Your task to perform on an android device: Open Wikipedia Image 0: 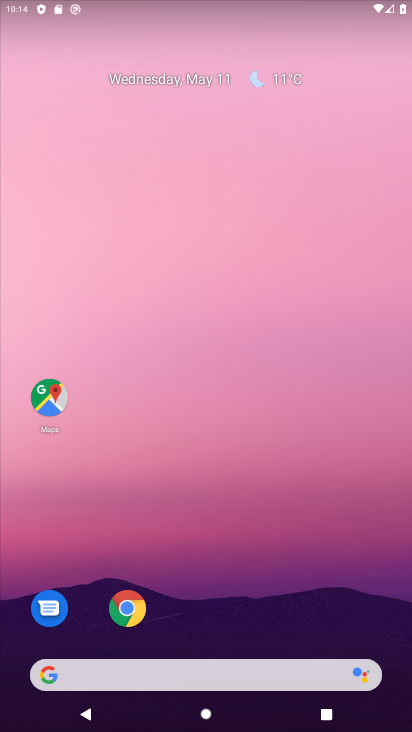
Step 0: click (283, 273)
Your task to perform on an android device: Open Wikipedia Image 1: 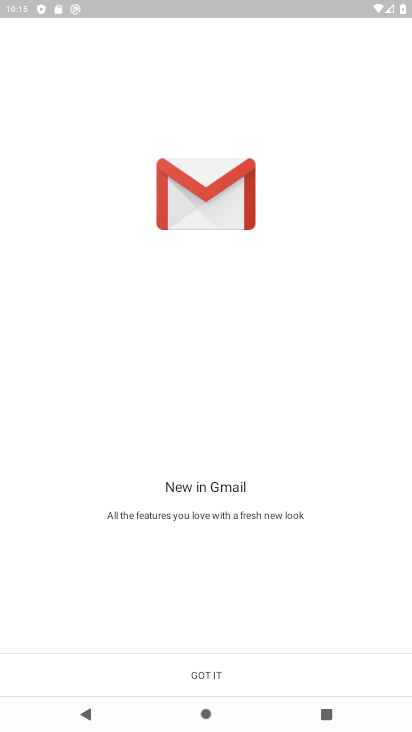
Step 1: press home button
Your task to perform on an android device: Open Wikipedia Image 2: 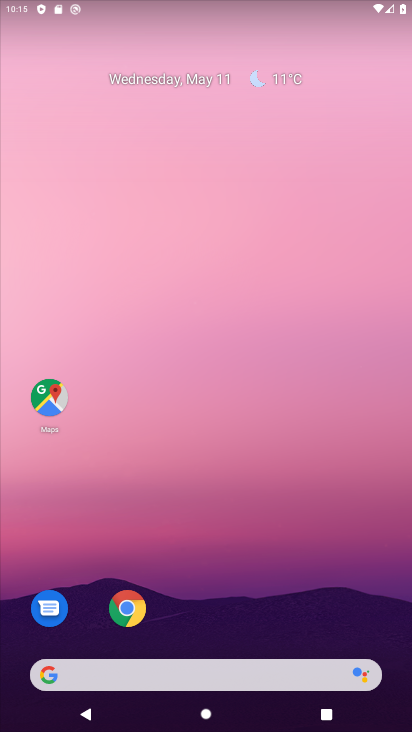
Step 2: click (131, 607)
Your task to perform on an android device: Open Wikipedia Image 3: 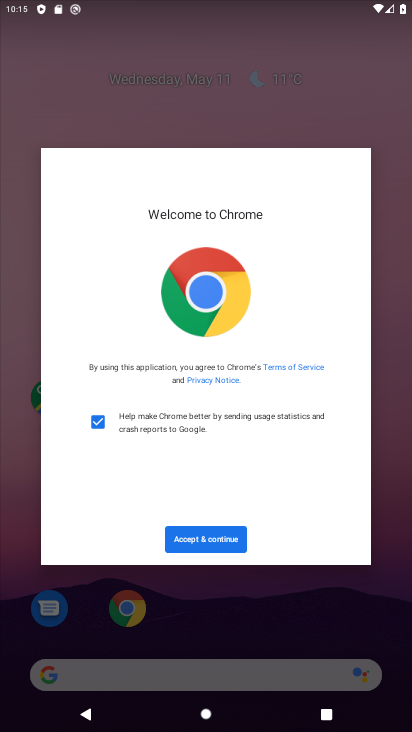
Step 3: click (227, 548)
Your task to perform on an android device: Open Wikipedia Image 4: 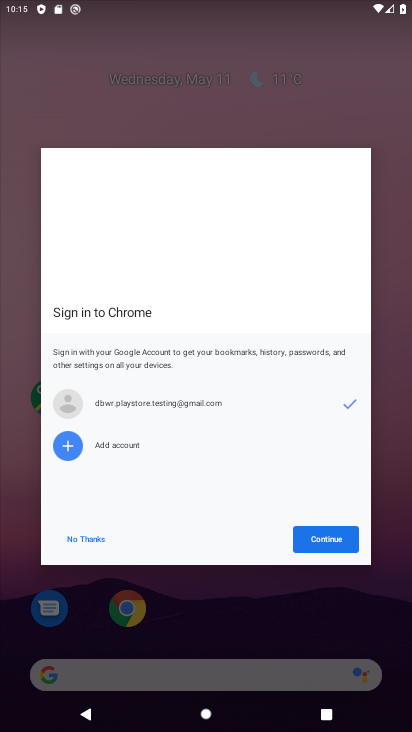
Step 4: click (341, 531)
Your task to perform on an android device: Open Wikipedia Image 5: 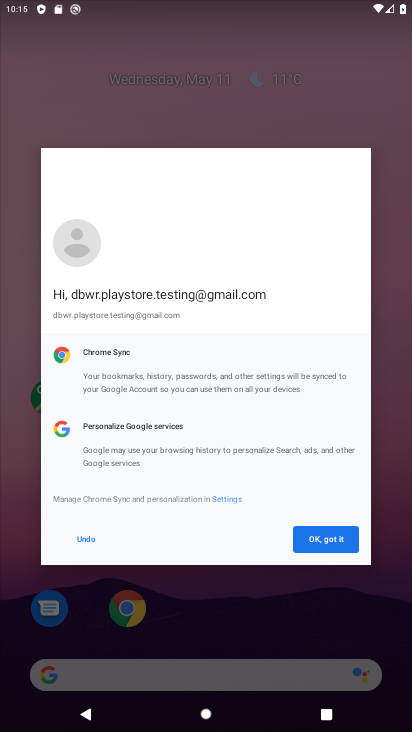
Step 5: click (312, 543)
Your task to perform on an android device: Open Wikipedia Image 6: 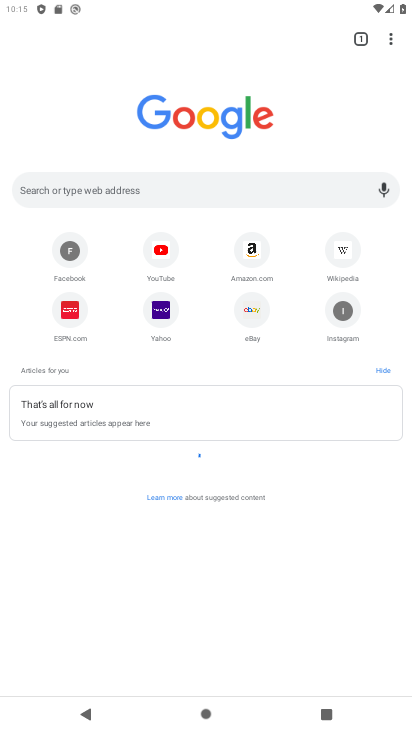
Step 6: click (167, 192)
Your task to perform on an android device: Open Wikipedia Image 7: 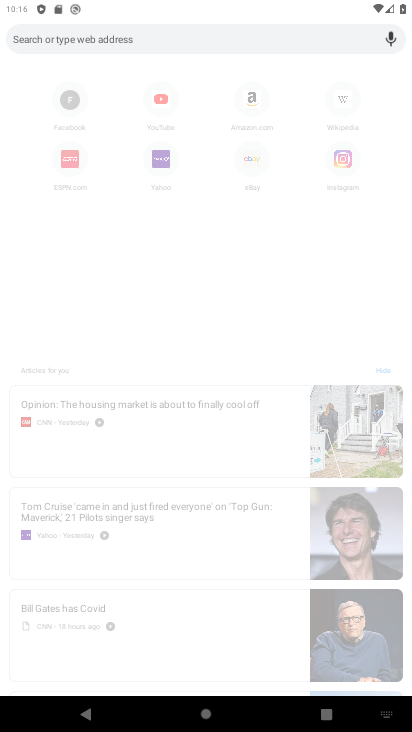
Step 7: type "wikipedia"
Your task to perform on an android device: Open Wikipedia Image 8: 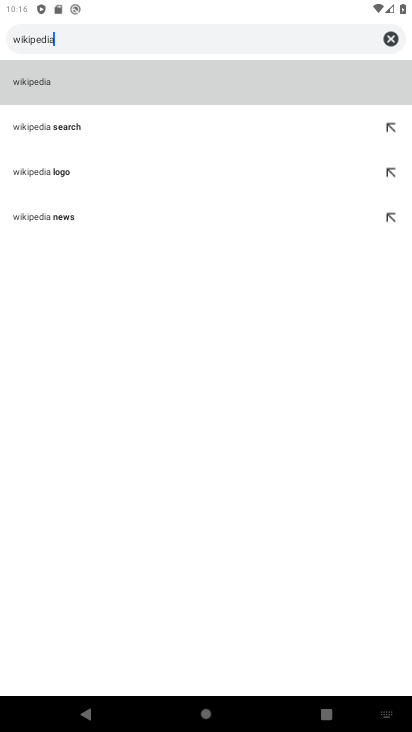
Step 8: click (225, 89)
Your task to perform on an android device: Open Wikipedia Image 9: 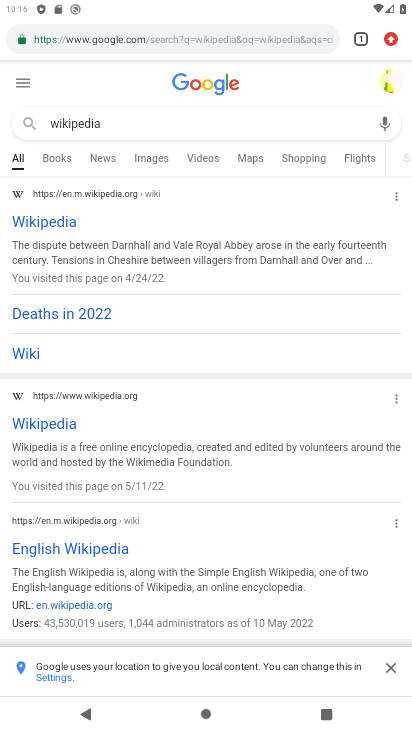
Step 9: task complete